Your task to perform on an android device: open the mobile data screen to see how much data has been used Image 0: 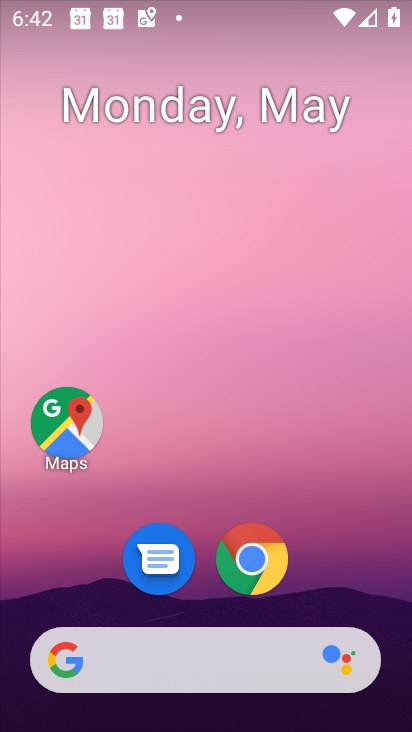
Step 0: drag from (388, 663) to (314, 64)
Your task to perform on an android device: open the mobile data screen to see how much data has been used Image 1: 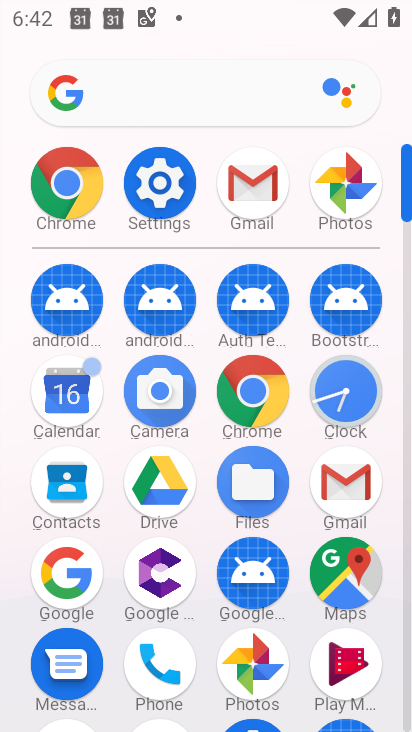
Step 1: click (151, 188)
Your task to perform on an android device: open the mobile data screen to see how much data has been used Image 2: 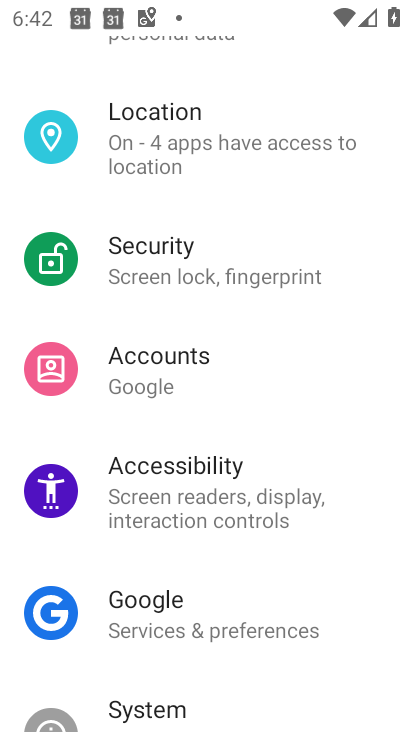
Step 2: drag from (161, 211) to (219, 600)
Your task to perform on an android device: open the mobile data screen to see how much data has been used Image 3: 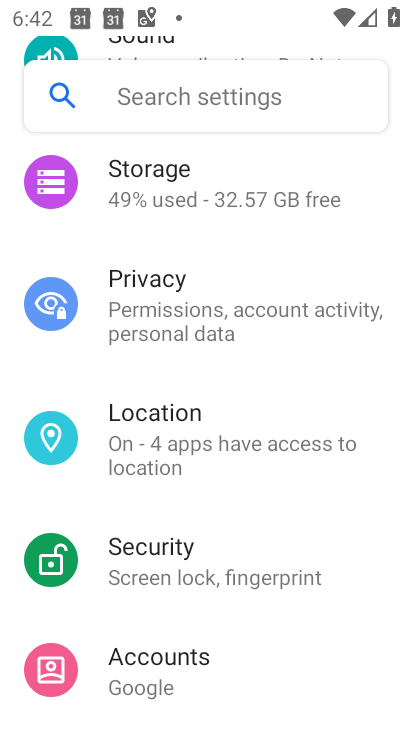
Step 3: drag from (214, 230) to (172, 559)
Your task to perform on an android device: open the mobile data screen to see how much data has been used Image 4: 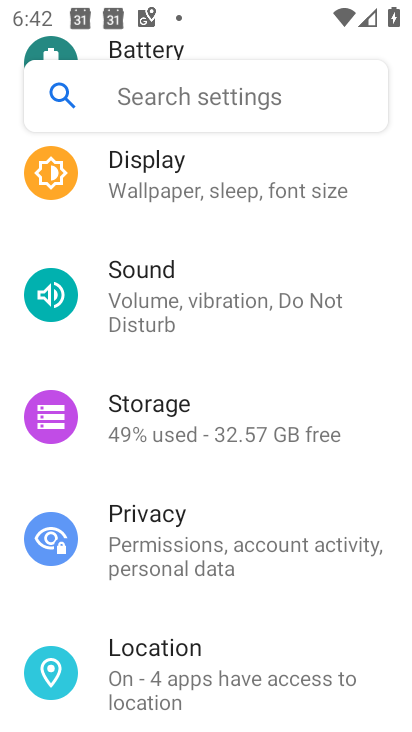
Step 4: drag from (172, 218) to (166, 633)
Your task to perform on an android device: open the mobile data screen to see how much data has been used Image 5: 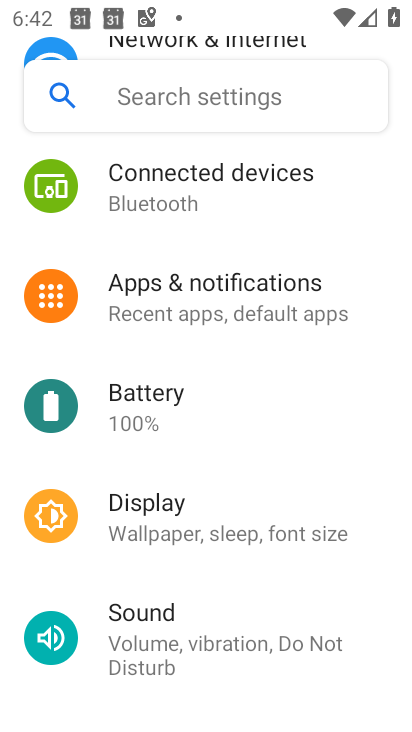
Step 5: drag from (225, 226) to (203, 621)
Your task to perform on an android device: open the mobile data screen to see how much data has been used Image 6: 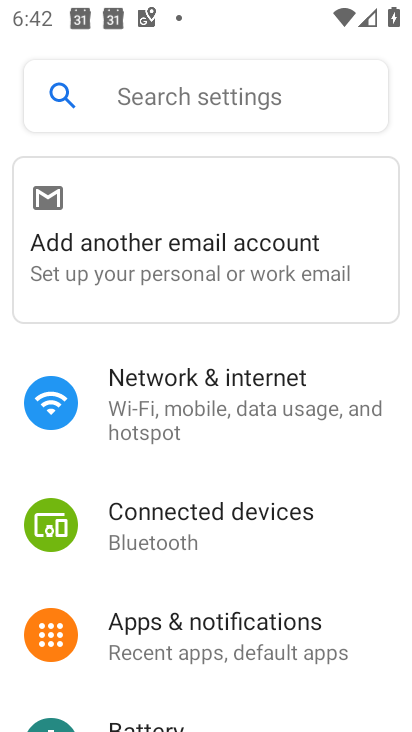
Step 6: click (199, 440)
Your task to perform on an android device: open the mobile data screen to see how much data has been used Image 7: 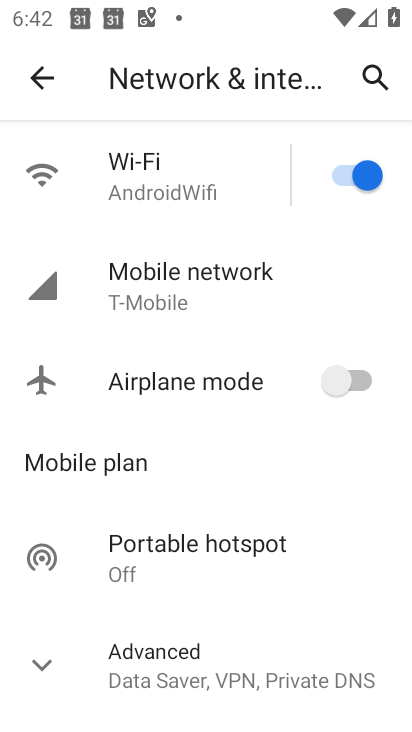
Step 7: click (201, 315)
Your task to perform on an android device: open the mobile data screen to see how much data has been used Image 8: 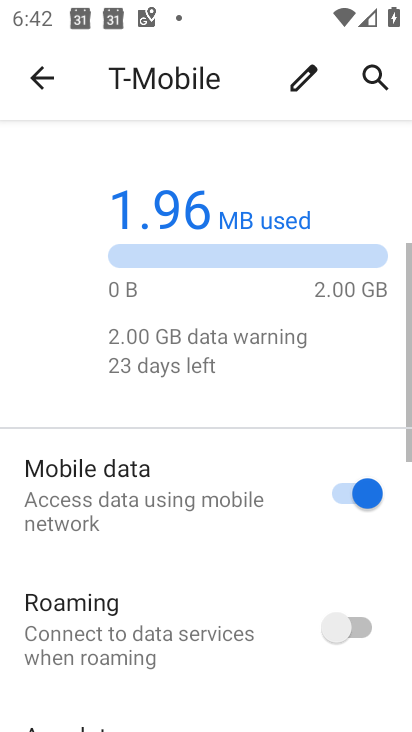
Step 8: drag from (134, 546) to (179, 109)
Your task to perform on an android device: open the mobile data screen to see how much data has been used Image 9: 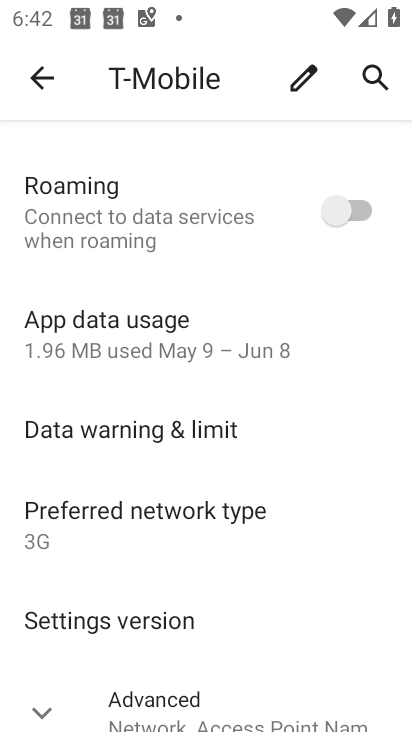
Step 9: click (140, 340)
Your task to perform on an android device: open the mobile data screen to see how much data has been used Image 10: 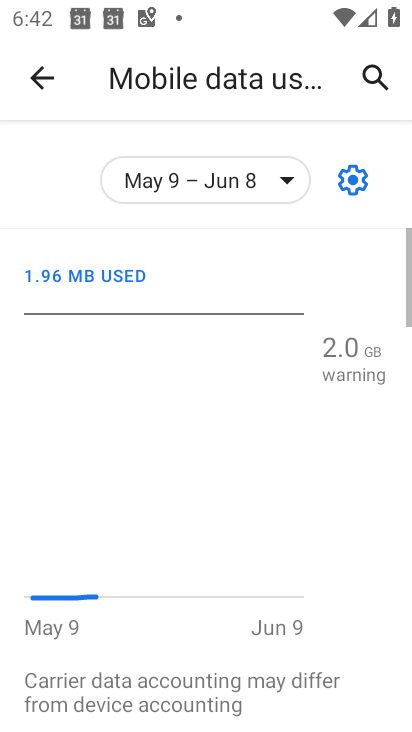
Step 10: task complete